Your task to perform on an android device: Go to location settings Image 0: 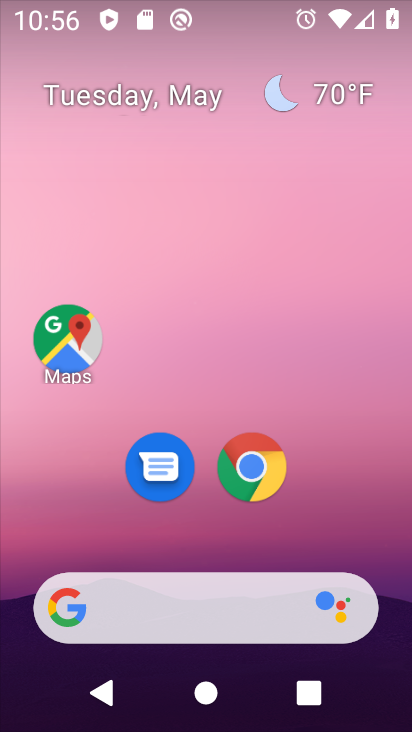
Step 0: drag from (85, 573) to (211, 50)
Your task to perform on an android device: Go to location settings Image 1: 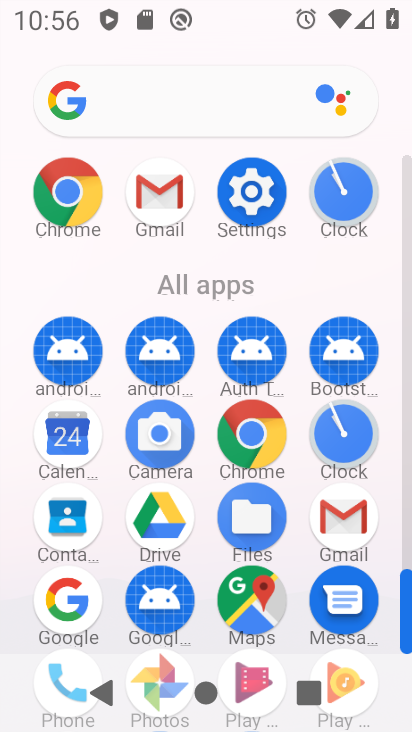
Step 1: drag from (129, 579) to (204, 272)
Your task to perform on an android device: Go to location settings Image 2: 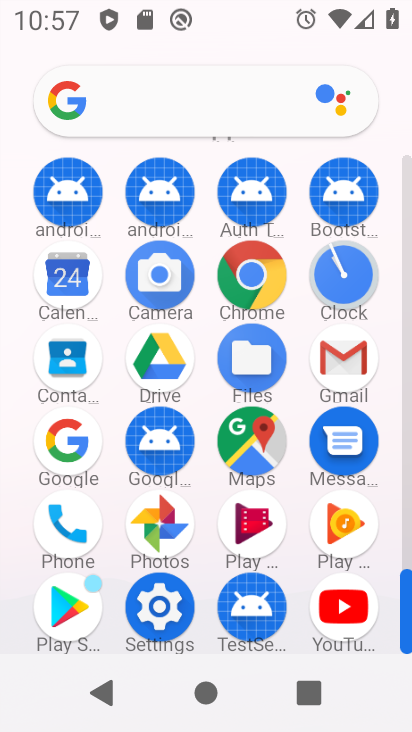
Step 2: click (154, 608)
Your task to perform on an android device: Go to location settings Image 3: 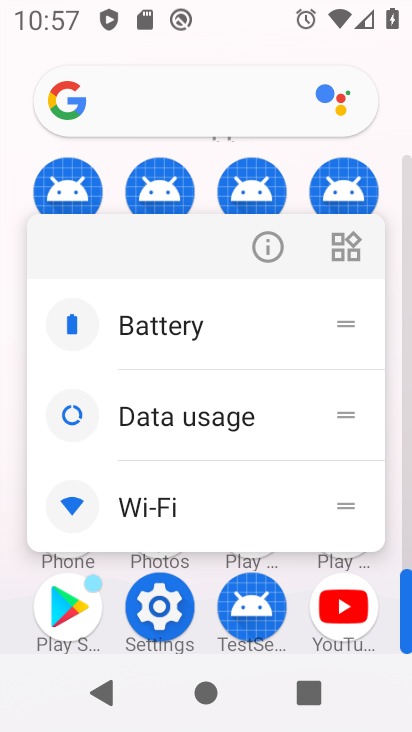
Step 3: click (155, 608)
Your task to perform on an android device: Go to location settings Image 4: 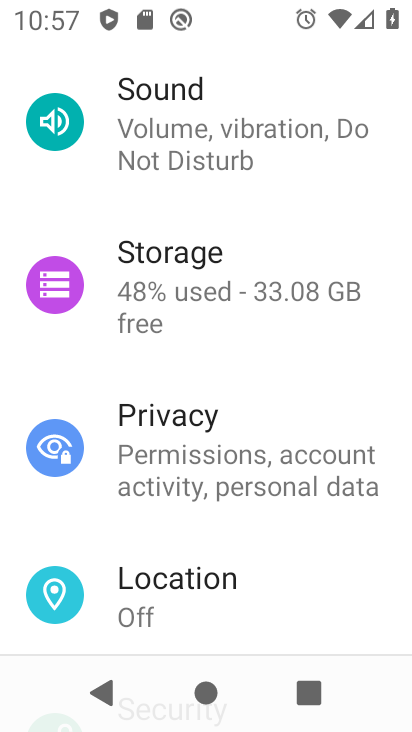
Step 4: drag from (275, 543) to (320, 296)
Your task to perform on an android device: Go to location settings Image 5: 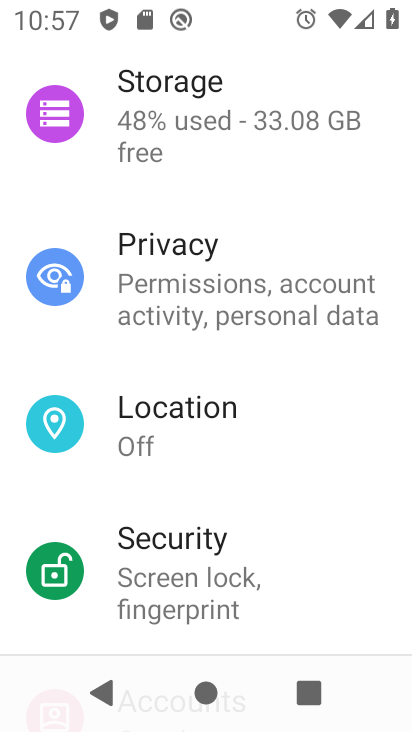
Step 5: click (213, 430)
Your task to perform on an android device: Go to location settings Image 6: 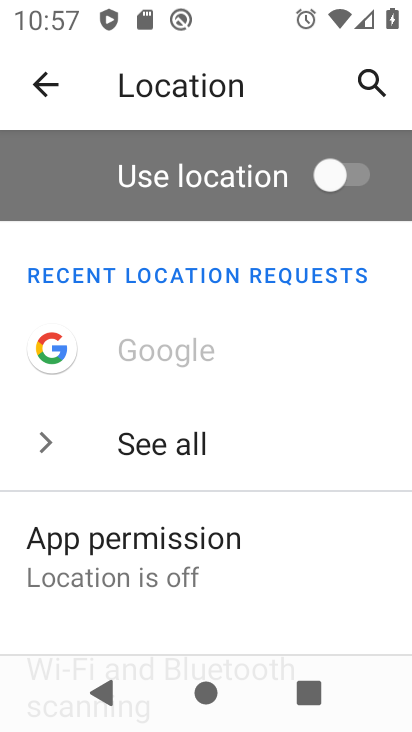
Step 6: task complete